Your task to perform on an android device: Open the web browser Image 0: 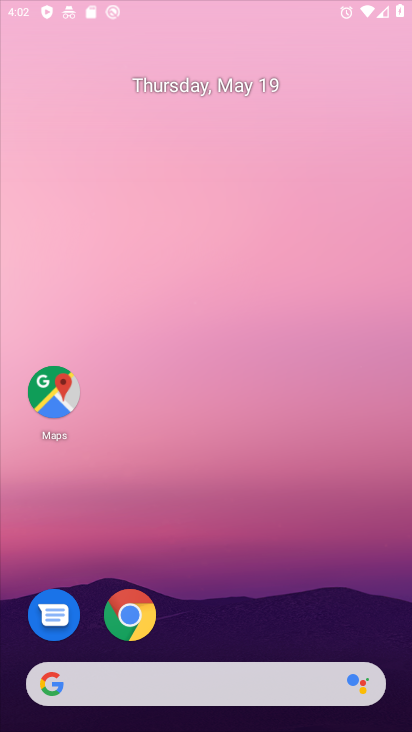
Step 0: drag from (292, 584) to (248, 128)
Your task to perform on an android device: Open the web browser Image 1: 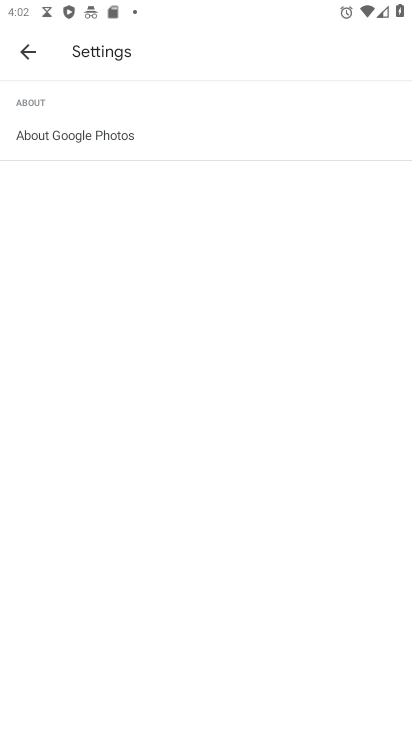
Step 1: click (22, 44)
Your task to perform on an android device: Open the web browser Image 2: 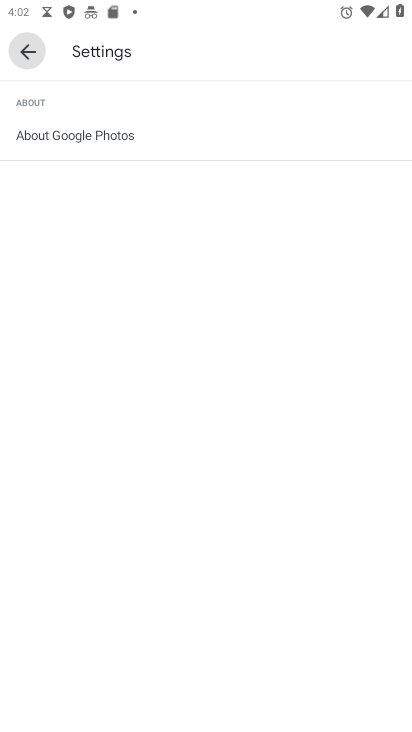
Step 2: click (22, 44)
Your task to perform on an android device: Open the web browser Image 3: 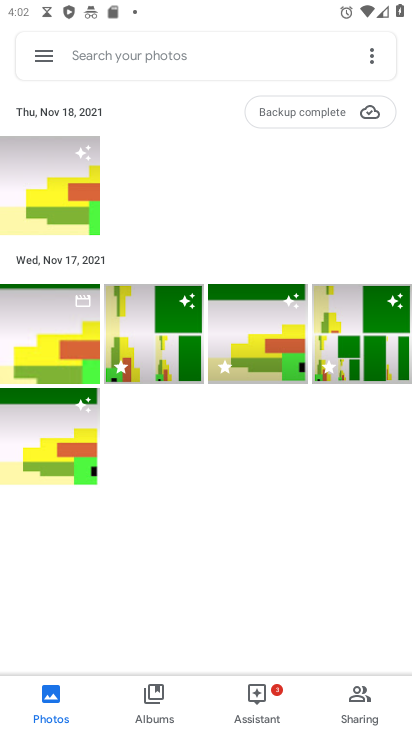
Step 3: press back button
Your task to perform on an android device: Open the web browser Image 4: 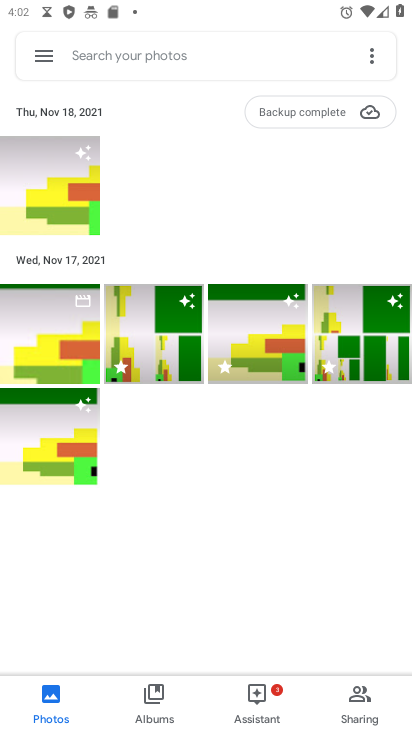
Step 4: press back button
Your task to perform on an android device: Open the web browser Image 5: 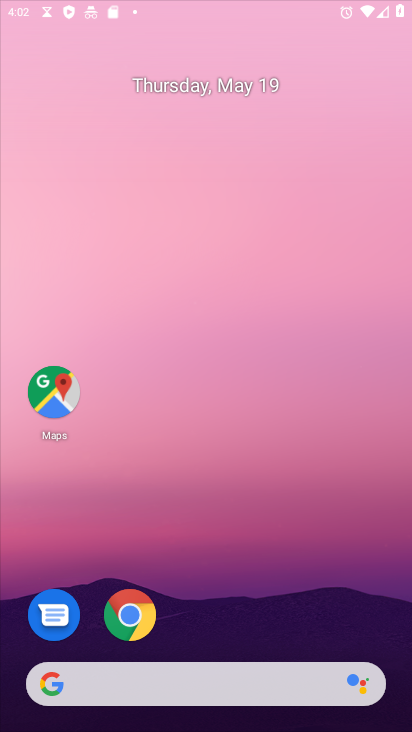
Step 5: press back button
Your task to perform on an android device: Open the web browser Image 6: 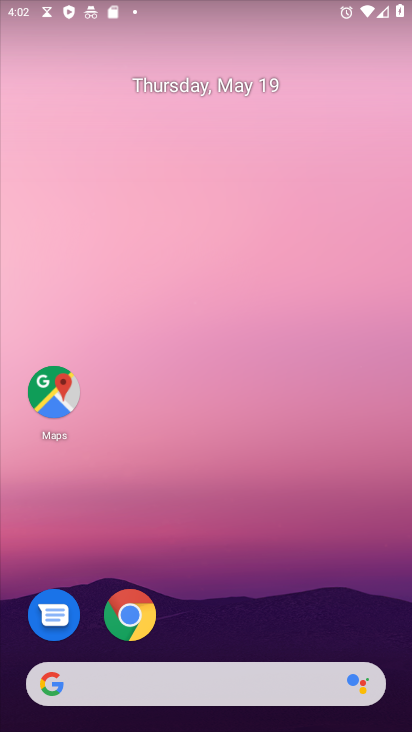
Step 6: drag from (252, 611) to (138, 119)
Your task to perform on an android device: Open the web browser Image 7: 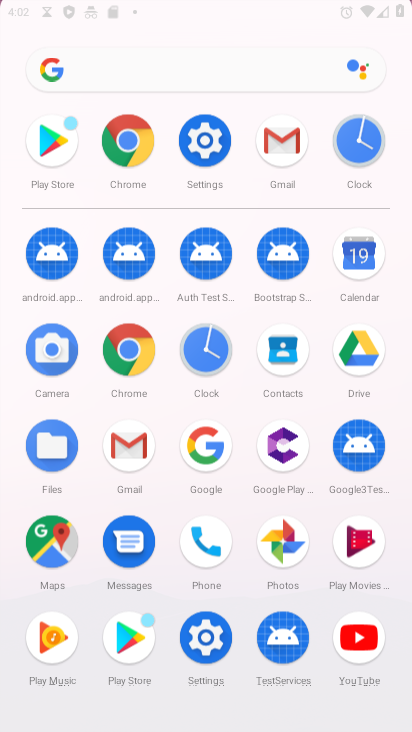
Step 7: drag from (246, 568) to (138, 66)
Your task to perform on an android device: Open the web browser Image 8: 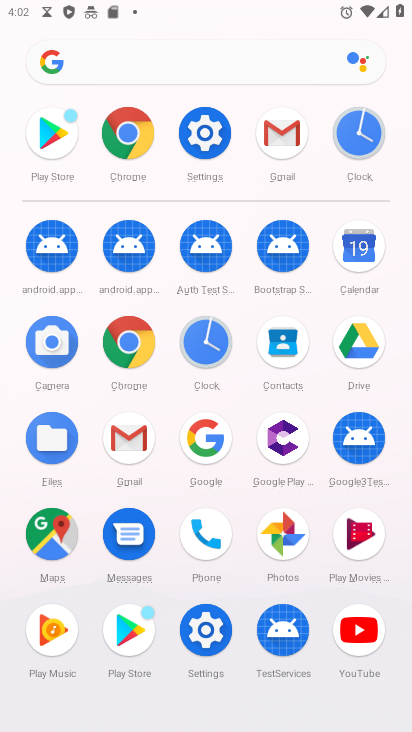
Step 8: click (122, 117)
Your task to perform on an android device: Open the web browser Image 9: 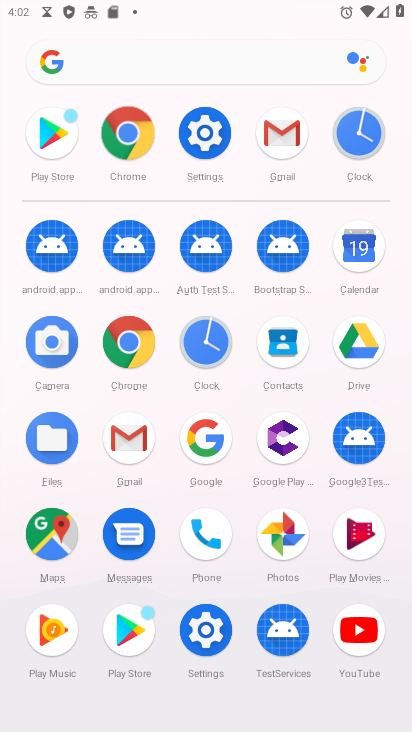
Step 9: click (122, 117)
Your task to perform on an android device: Open the web browser Image 10: 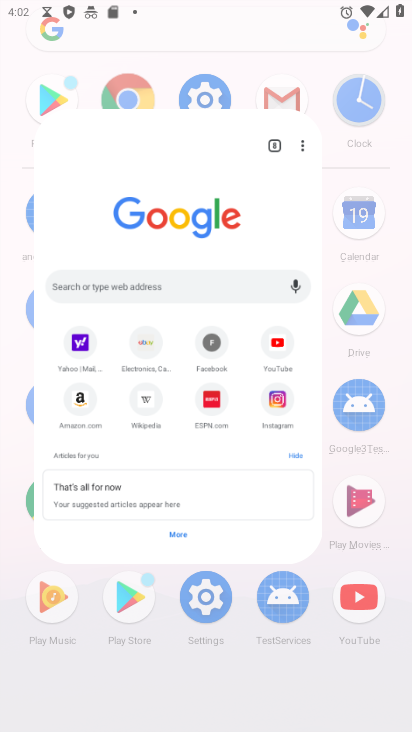
Step 10: click (122, 117)
Your task to perform on an android device: Open the web browser Image 11: 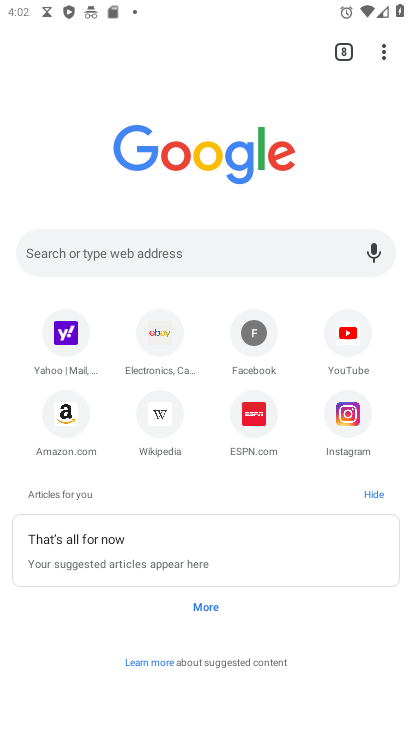
Step 11: click (383, 52)
Your task to perform on an android device: Open the web browser Image 12: 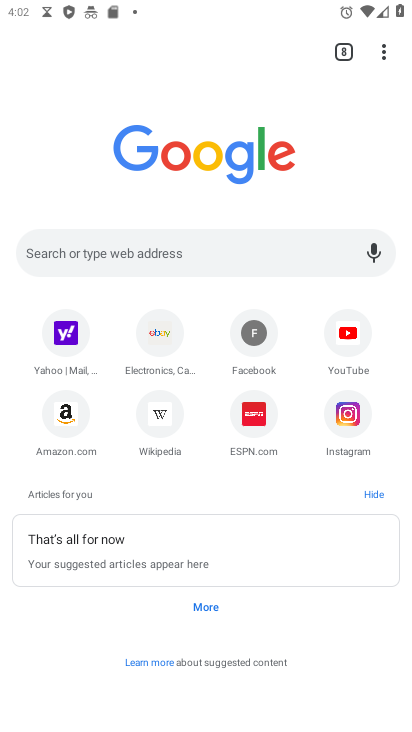
Step 12: task complete